Your task to perform on an android device: Open Yahoo.com Image 0: 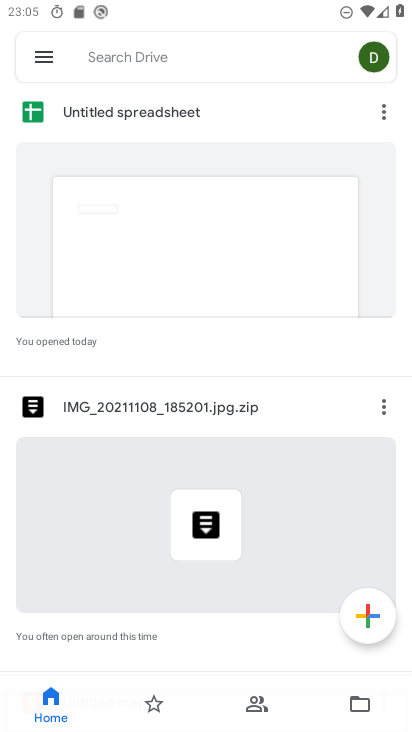
Step 0: press home button
Your task to perform on an android device: Open Yahoo.com Image 1: 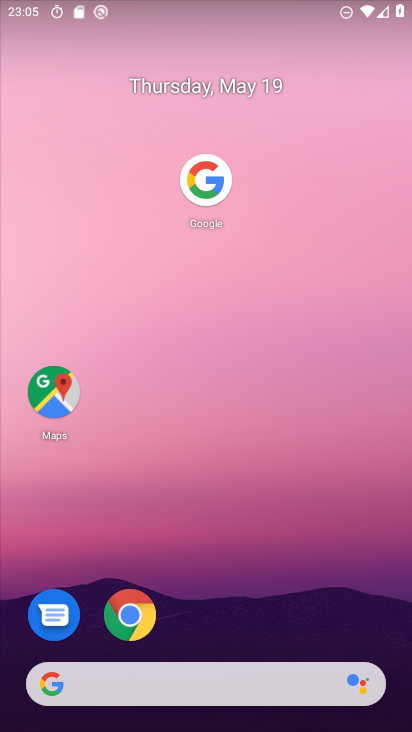
Step 1: click (136, 620)
Your task to perform on an android device: Open Yahoo.com Image 2: 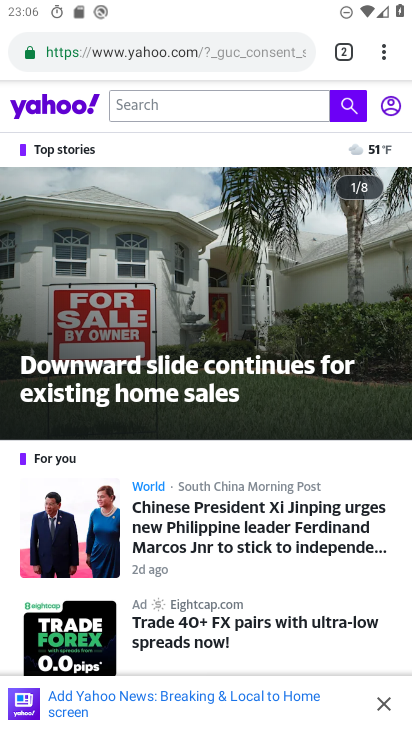
Step 2: task complete